Your task to perform on an android device: Search for flights from Mexico city to Seattle Image 0: 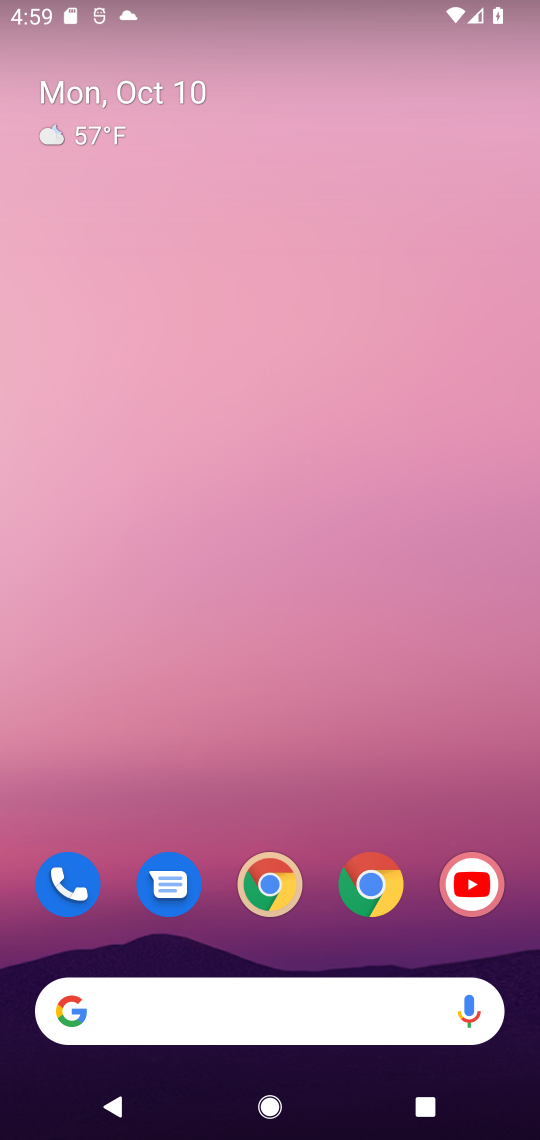
Step 0: click (388, 886)
Your task to perform on an android device: Search for flights from Mexico city to Seattle Image 1: 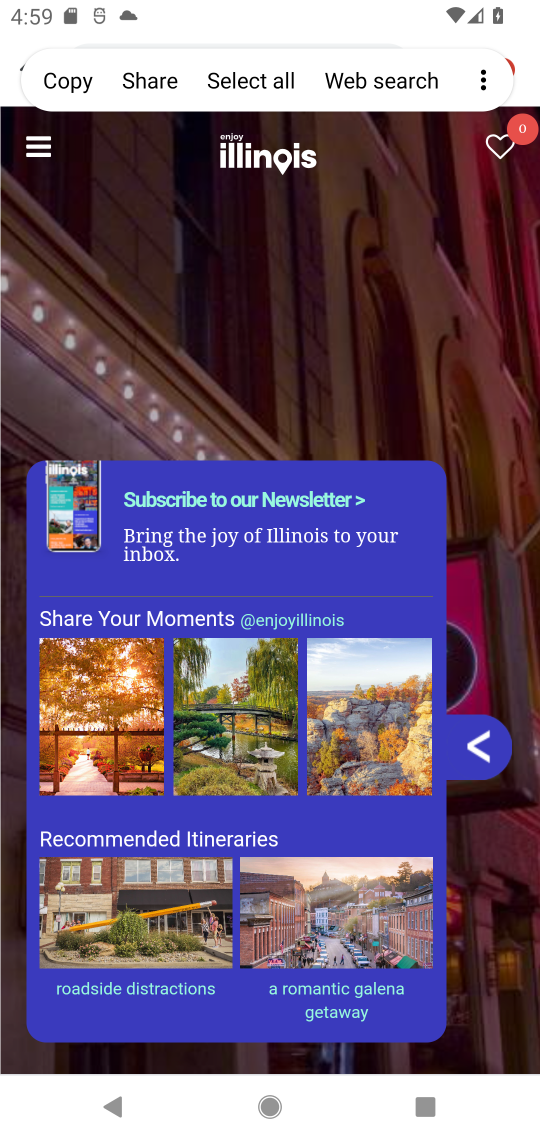
Step 1: click (312, 91)
Your task to perform on an android device: Search for flights from Mexico city to Seattle Image 2: 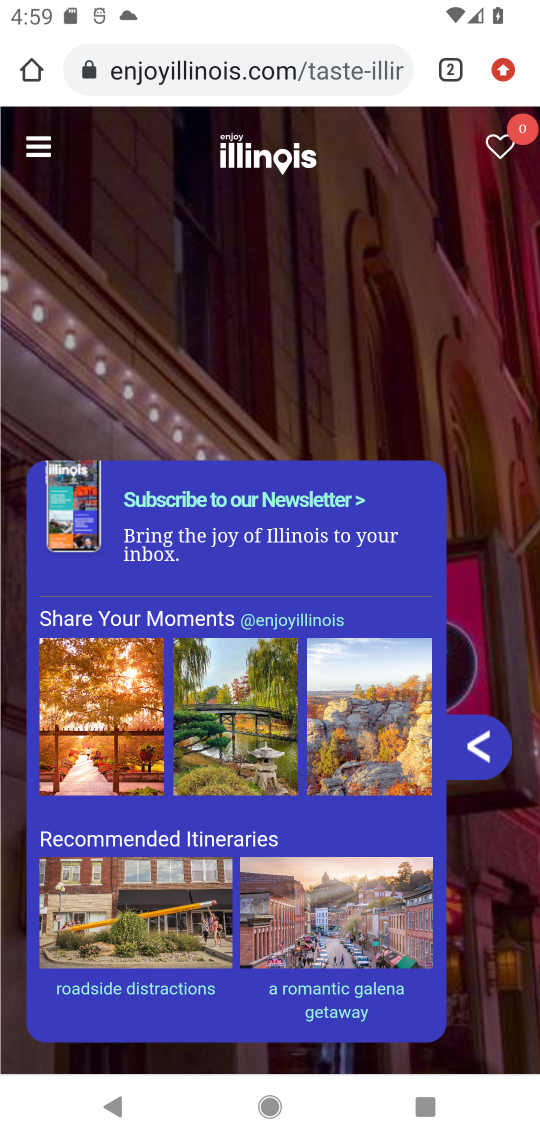
Step 2: click (376, 65)
Your task to perform on an android device: Search for flights from Mexico city to Seattle Image 3: 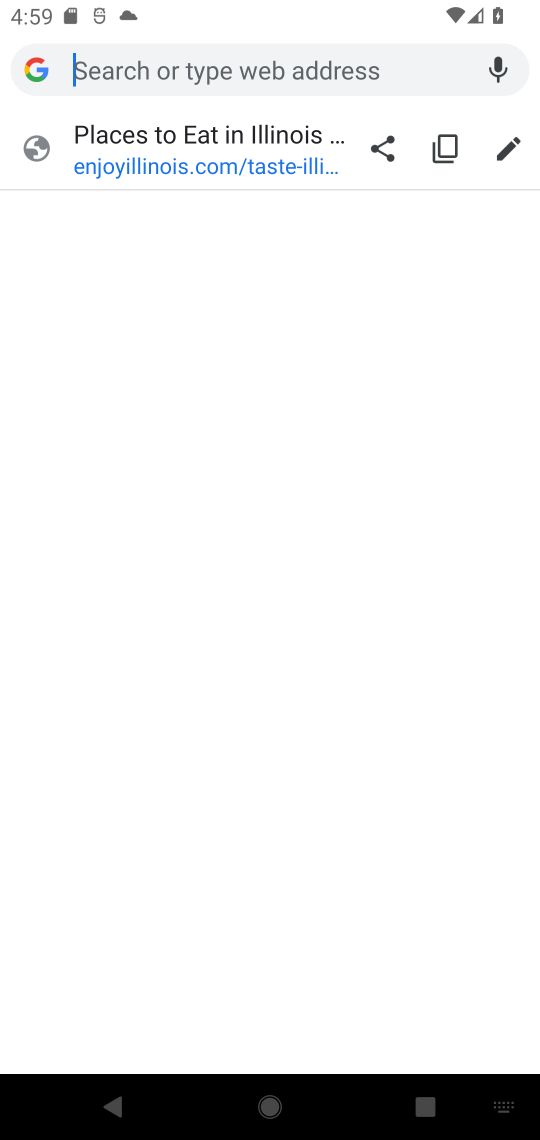
Step 3: type "flights from Mexico city to Seattle"
Your task to perform on an android device: Search for flights from Mexico city to Seattle Image 4: 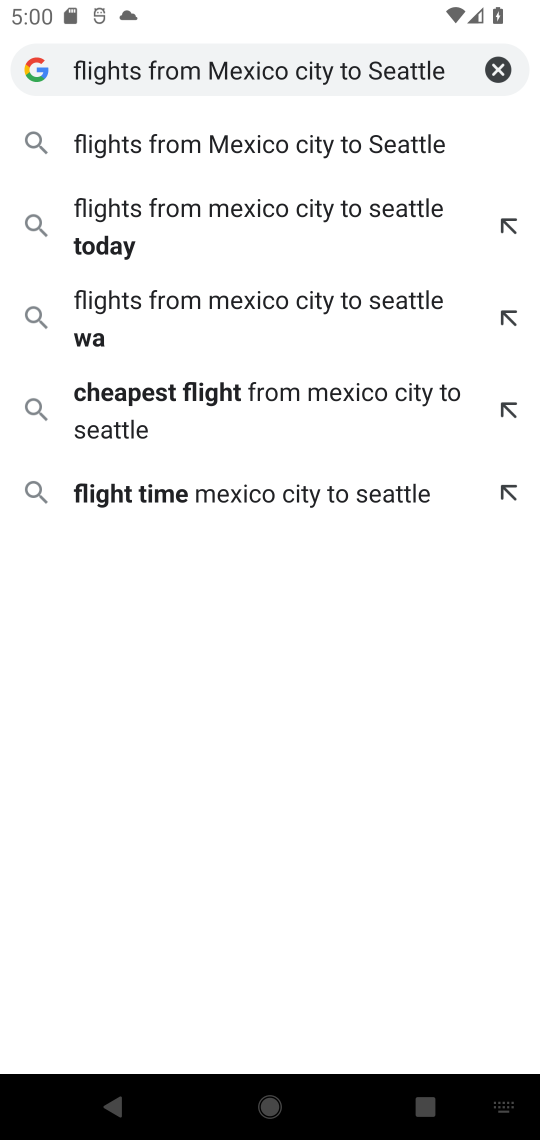
Step 4: click (305, 156)
Your task to perform on an android device: Search for flights from Mexico city to Seattle Image 5: 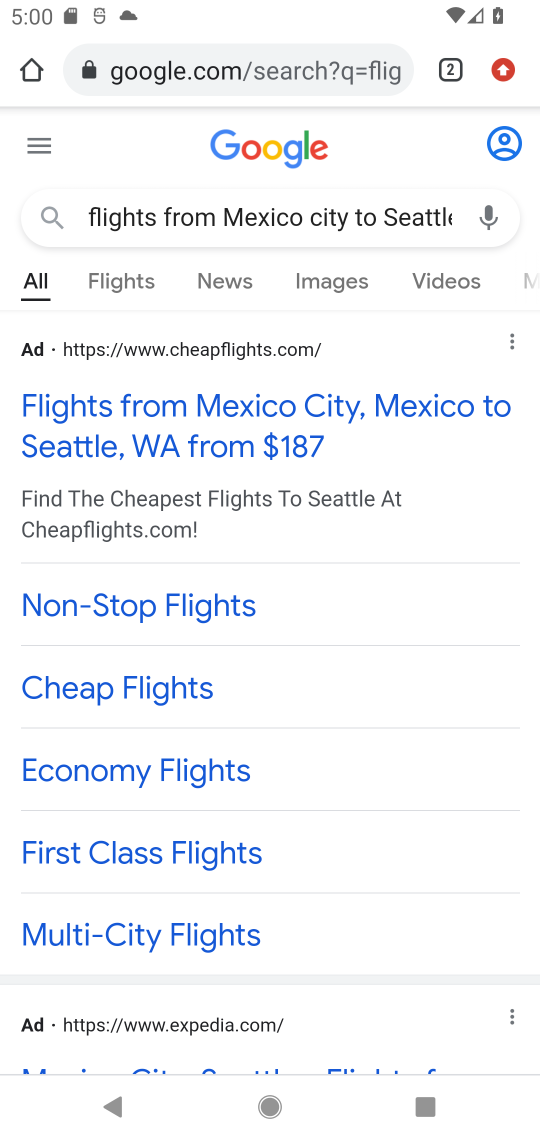
Step 5: click (193, 432)
Your task to perform on an android device: Search for flights from Mexico city to Seattle Image 6: 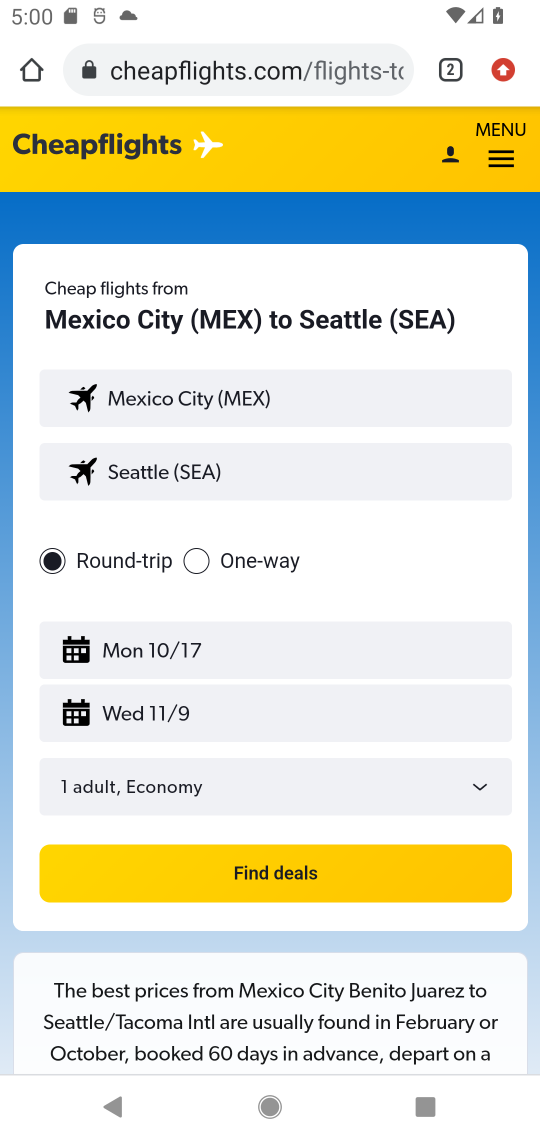
Step 6: press back button
Your task to perform on an android device: Search for flights from Mexico city to Seattle Image 7: 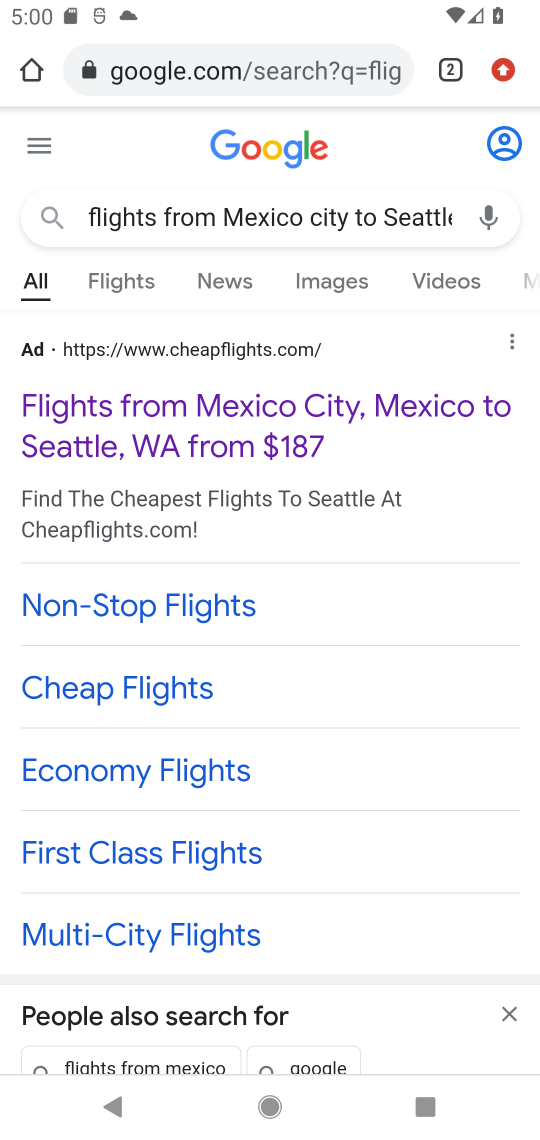
Step 7: click (152, 693)
Your task to perform on an android device: Search for flights from Mexico city to Seattle Image 8: 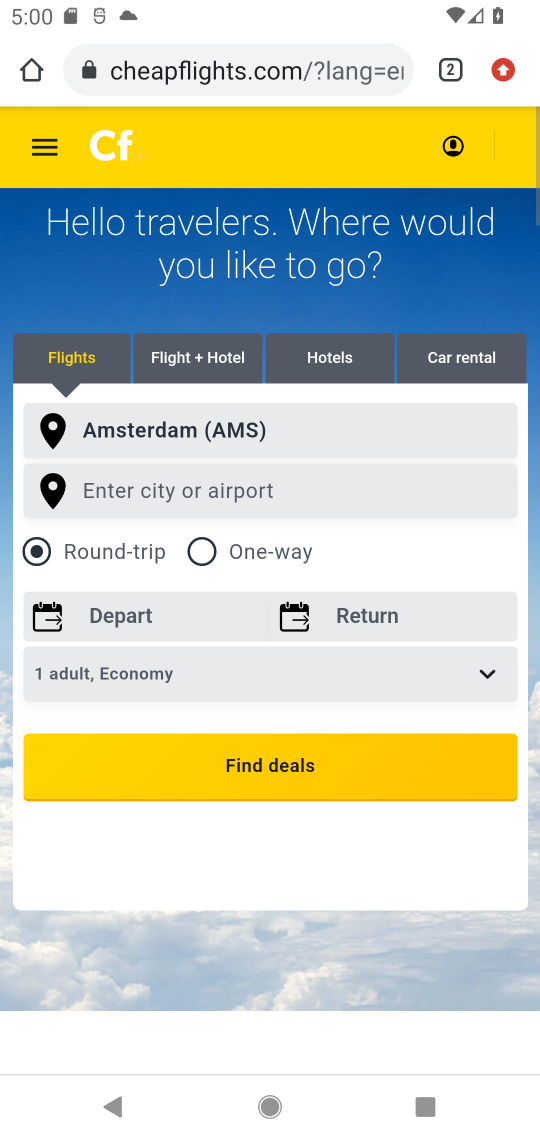
Step 8: task complete